Your task to perform on an android device: visit the assistant section in the google photos Image 0: 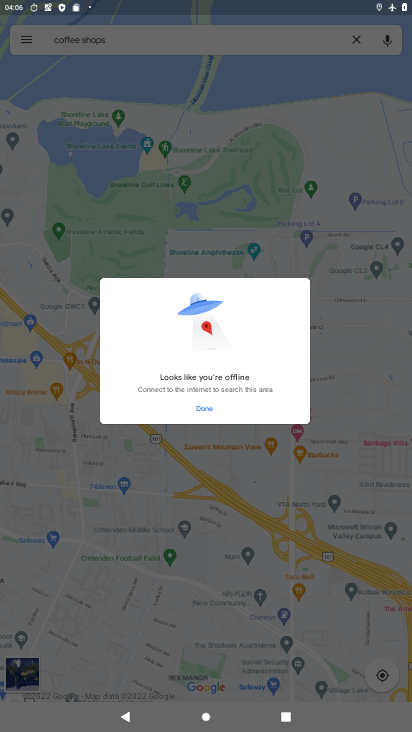
Step 0: press home button
Your task to perform on an android device: visit the assistant section in the google photos Image 1: 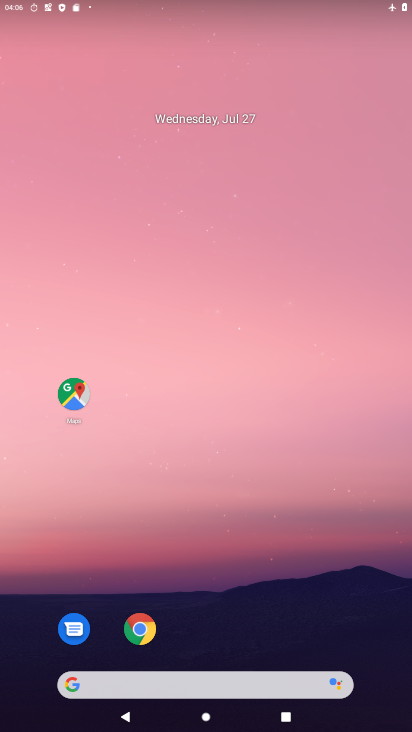
Step 1: drag from (326, 607) to (312, 33)
Your task to perform on an android device: visit the assistant section in the google photos Image 2: 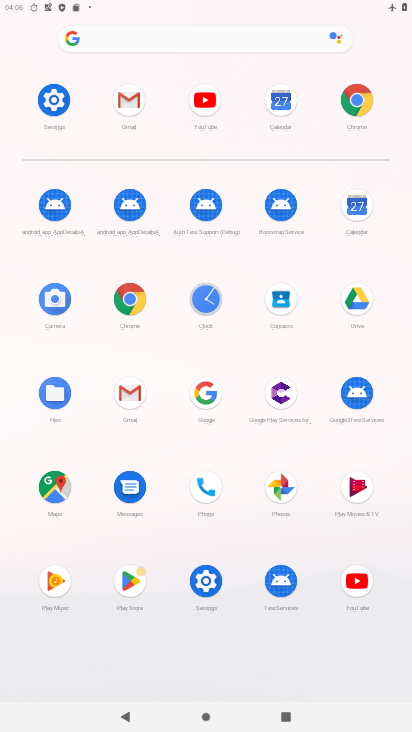
Step 2: click (285, 490)
Your task to perform on an android device: visit the assistant section in the google photos Image 3: 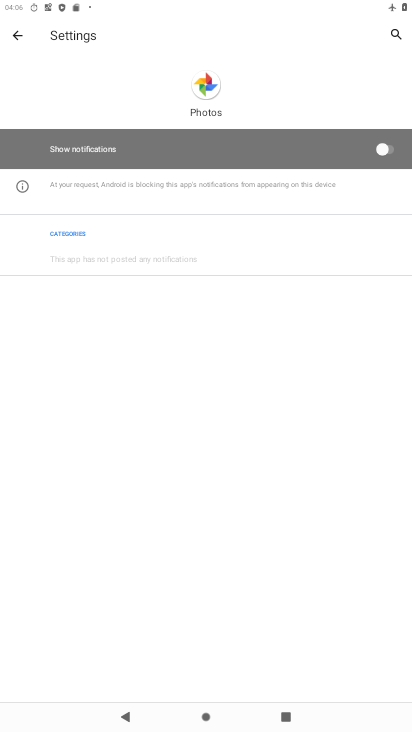
Step 3: click (28, 35)
Your task to perform on an android device: visit the assistant section in the google photos Image 4: 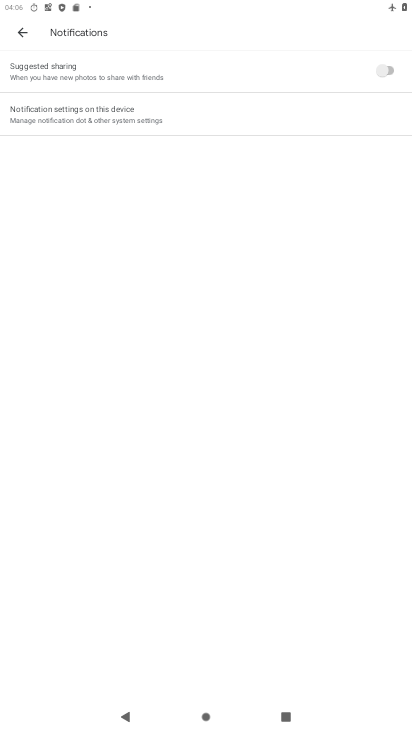
Step 4: click (20, 26)
Your task to perform on an android device: visit the assistant section in the google photos Image 5: 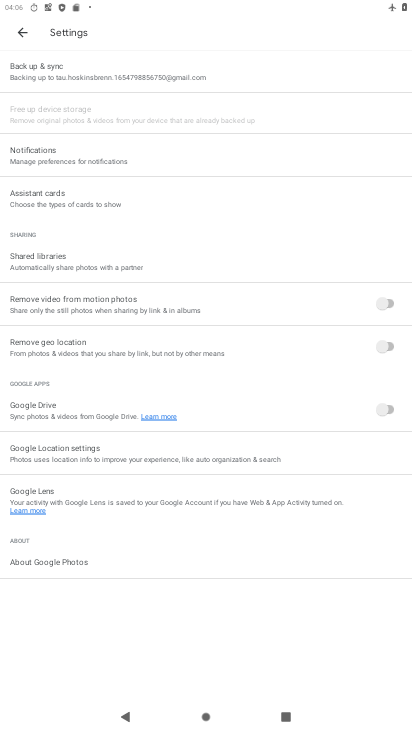
Step 5: click (26, 39)
Your task to perform on an android device: visit the assistant section in the google photos Image 6: 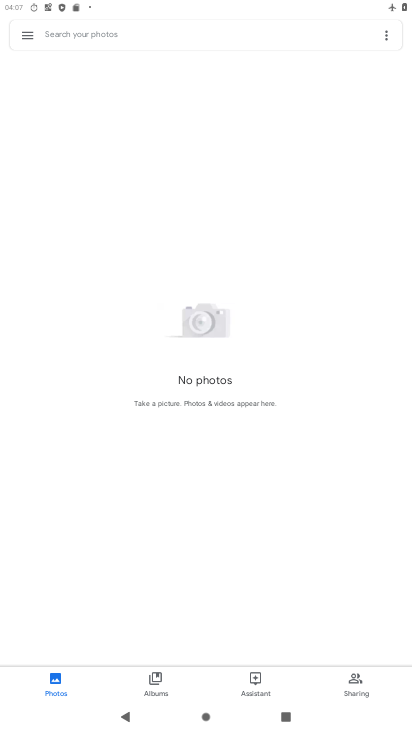
Step 6: click (254, 673)
Your task to perform on an android device: visit the assistant section in the google photos Image 7: 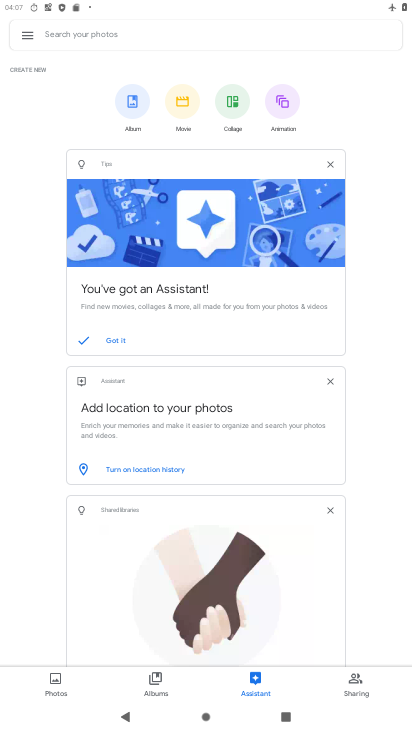
Step 7: task complete